Your task to perform on an android device: empty trash in the gmail app Image 0: 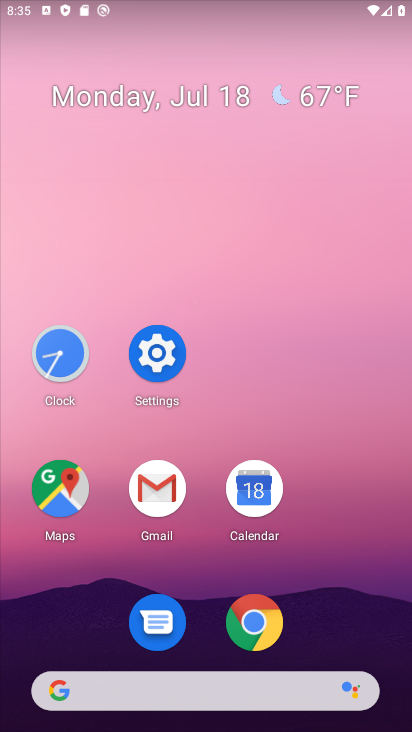
Step 0: click (164, 478)
Your task to perform on an android device: empty trash in the gmail app Image 1: 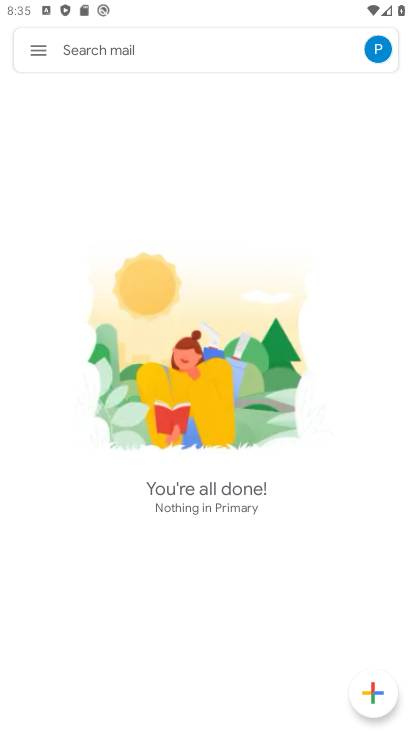
Step 1: click (30, 45)
Your task to perform on an android device: empty trash in the gmail app Image 2: 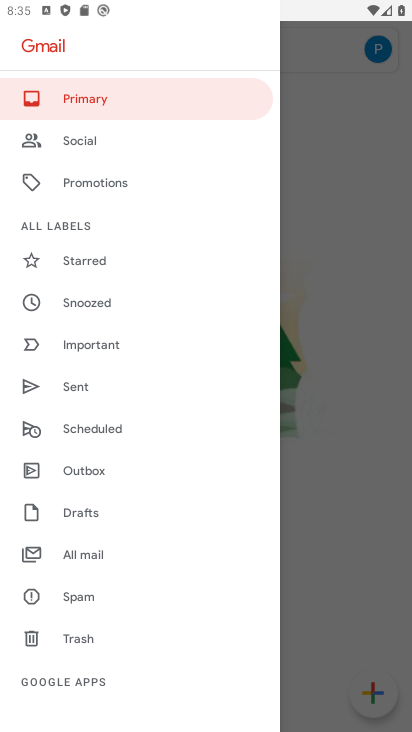
Step 2: click (70, 637)
Your task to perform on an android device: empty trash in the gmail app Image 3: 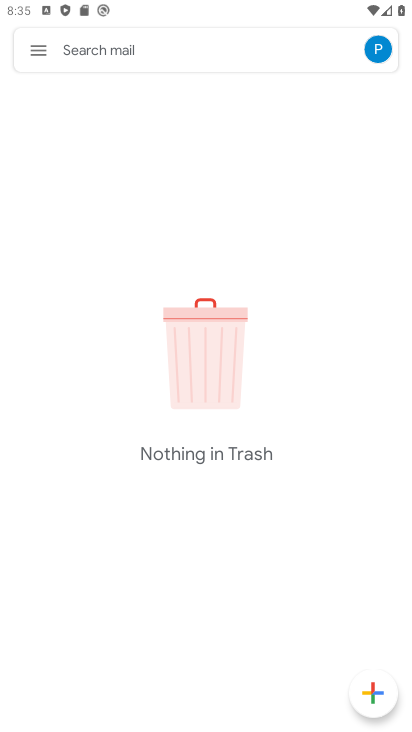
Step 3: task complete